Your task to perform on an android device: Search for seafood restaurants on Google Maps Image 0: 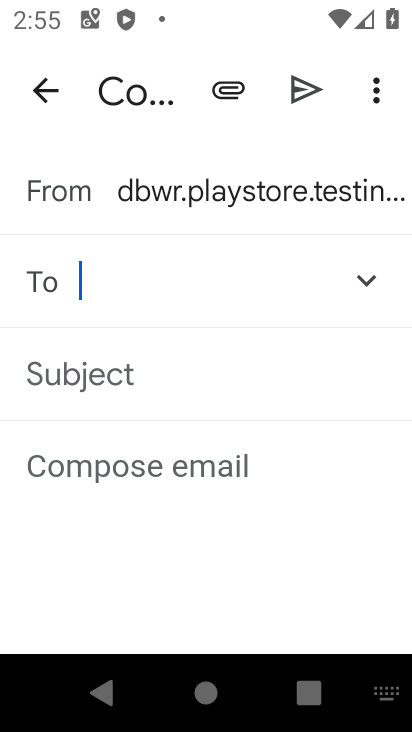
Step 0: press home button
Your task to perform on an android device: Search for seafood restaurants on Google Maps Image 1: 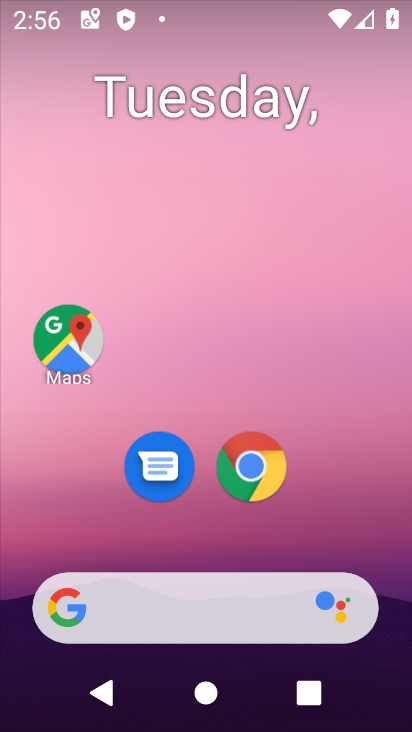
Step 1: click (47, 354)
Your task to perform on an android device: Search for seafood restaurants on Google Maps Image 2: 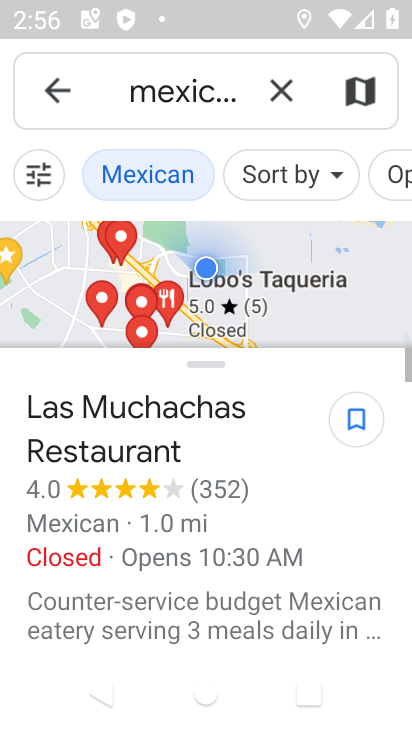
Step 2: click (298, 81)
Your task to perform on an android device: Search for seafood restaurants on Google Maps Image 3: 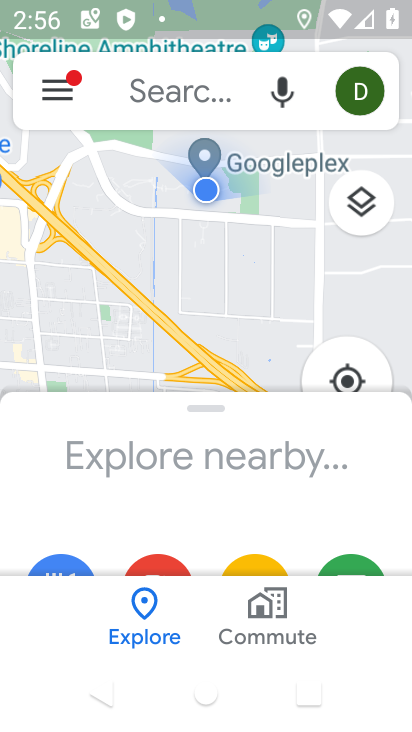
Step 3: click (249, 89)
Your task to perform on an android device: Search for seafood restaurants on Google Maps Image 4: 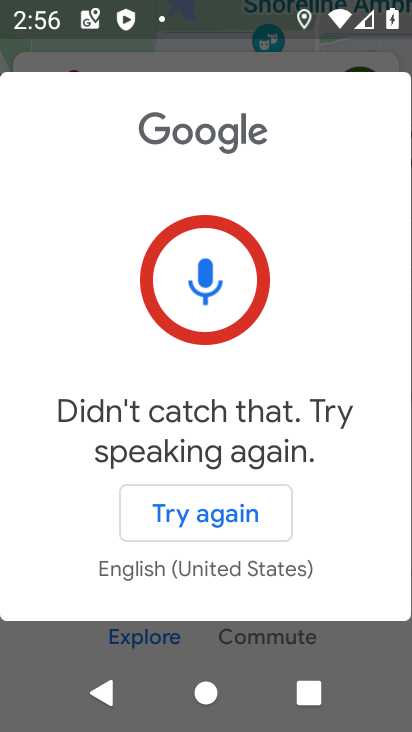
Step 4: click (206, 302)
Your task to perform on an android device: Search for seafood restaurants on Google Maps Image 5: 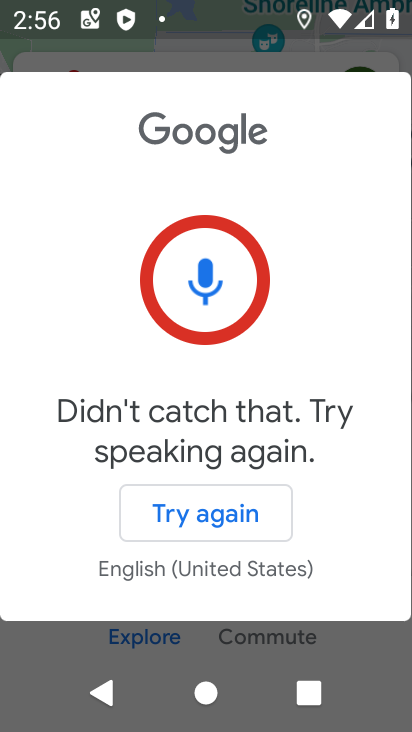
Step 5: press back button
Your task to perform on an android device: Search for seafood restaurants on Google Maps Image 6: 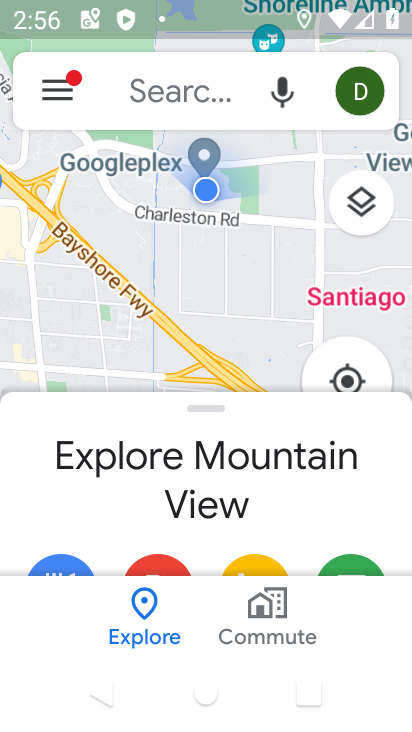
Step 6: click (175, 103)
Your task to perform on an android device: Search for seafood restaurants on Google Maps Image 7: 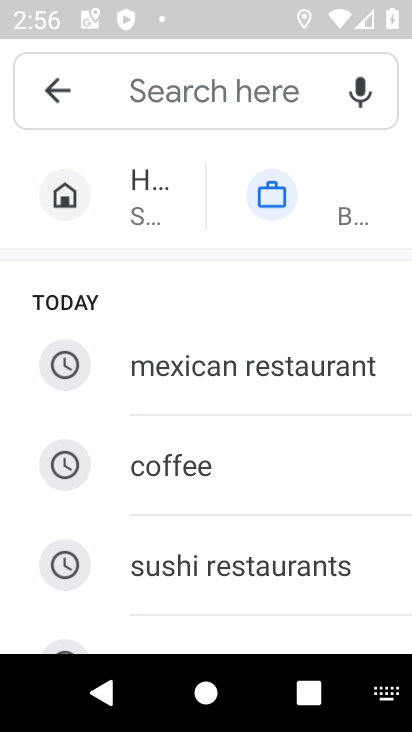
Step 7: drag from (261, 537) to (226, 288)
Your task to perform on an android device: Search for seafood restaurants on Google Maps Image 8: 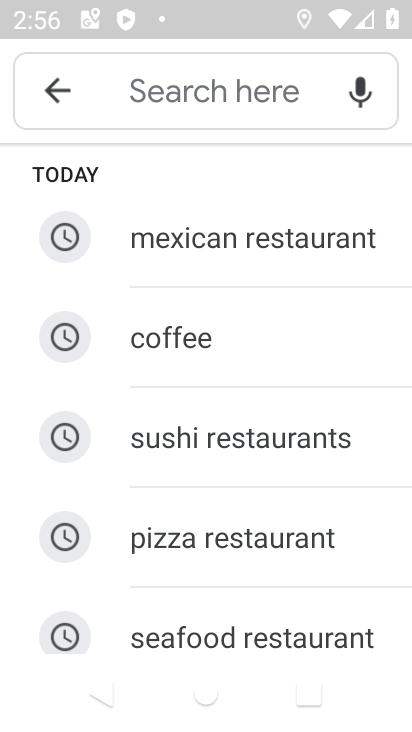
Step 8: click (224, 621)
Your task to perform on an android device: Search for seafood restaurants on Google Maps Image 9: 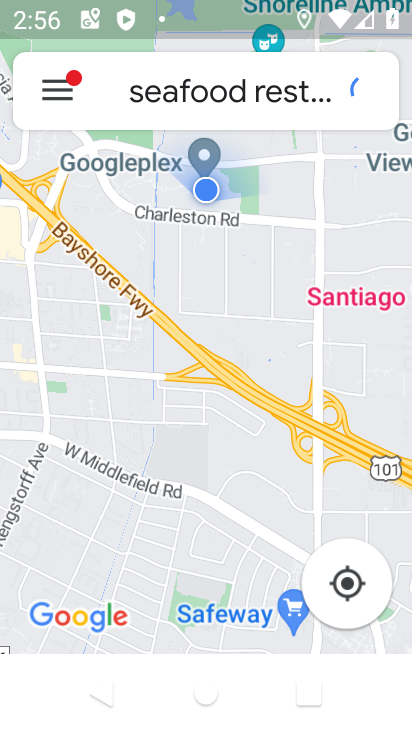
Step 9: task complete